Your task to perform on an android device: Go to notification settings Image 0: 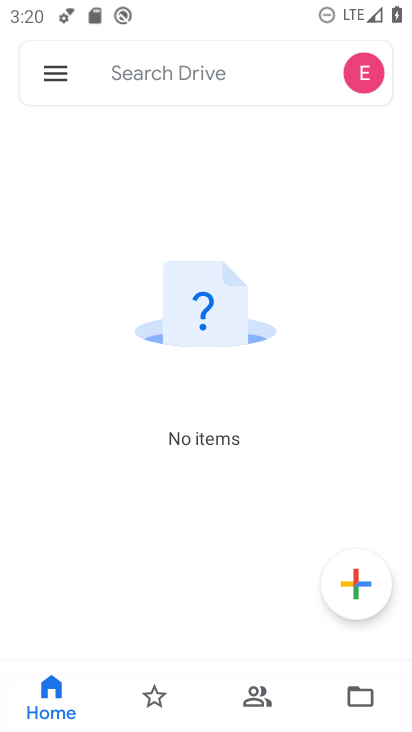
Step 0: press home button
Your task to perform on an android device: Go to notification settings Image 1: 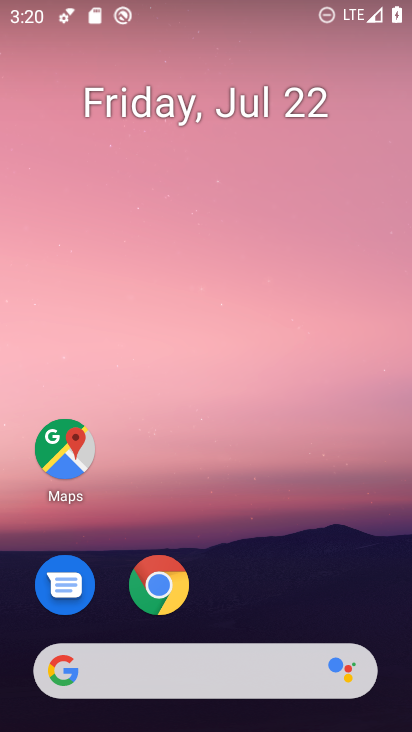
Step 1: drag from (265, 555) to (253, 1)
Your task to perform on an android device: Go to notification settings Image 2: 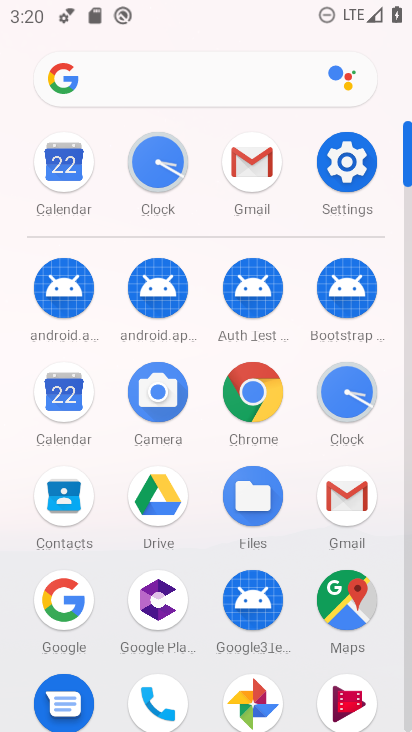
Step 2: click (350, 160)
Your task to perform on an android device: Go to notification settings Image 3: 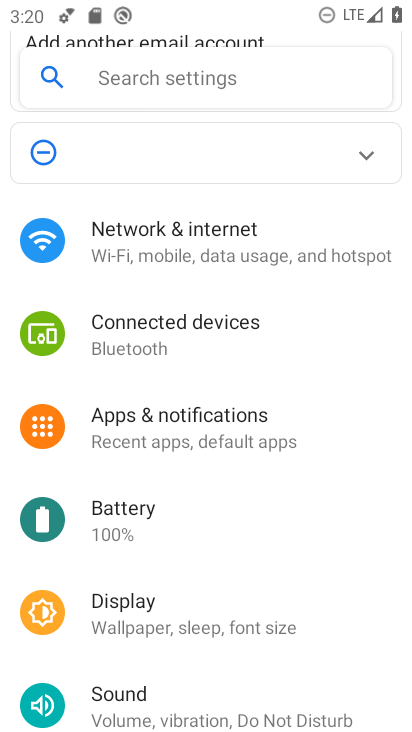
Step 3: drag from (227, 596) to (242, 149)
Your task to perform on an android device: Go to notification settings Image 4: 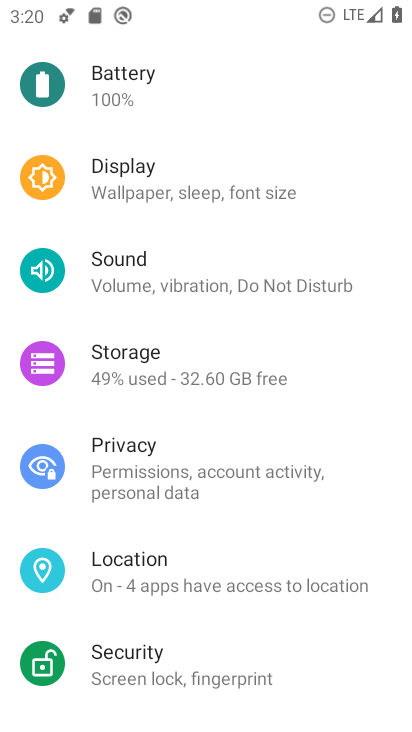
Step 4: drag from (232, 155) to (234, 569)
Your task to perform on an android device: Go to notification settings Image 5: 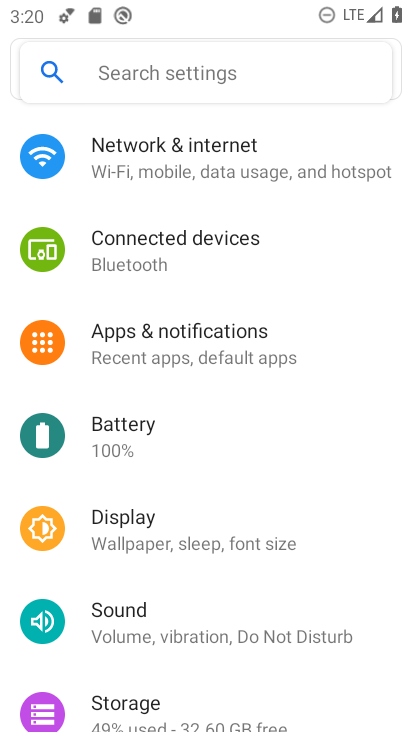
Step 5: click (232, 170)
Your task to perform on an android device: Go to notification settings Image 6: 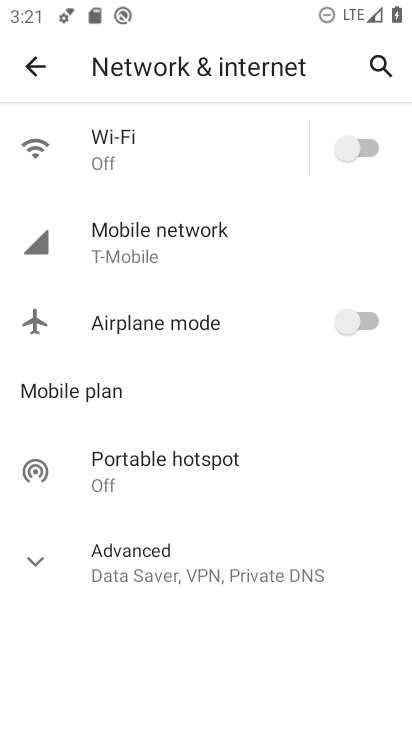
Step 6: click (34, 59)
Your task to perform on an android device: Go to notification settings Image 7: 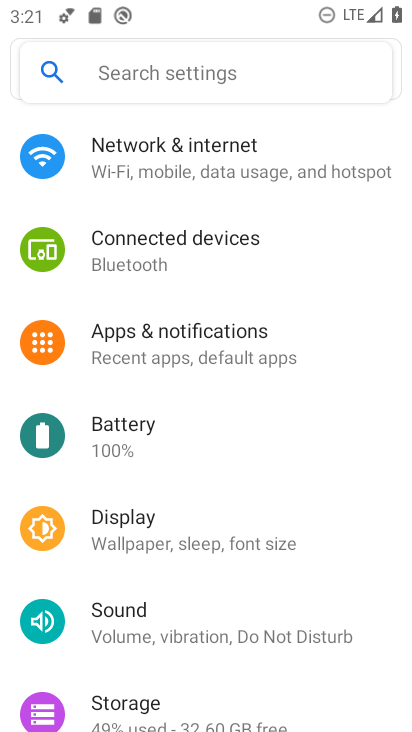
Step 7: click (225, 347)
Your task to perform on an android device: Go to notification settings Image 8: 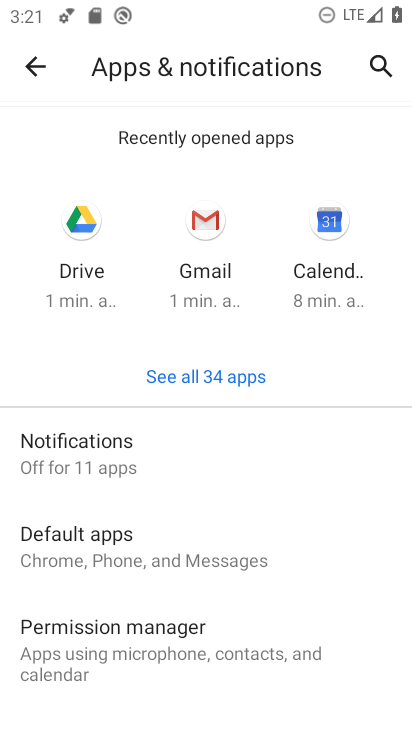
Step 8: click (122, 452)
Your task to perform on an android device: Go to notification settings Image 9: 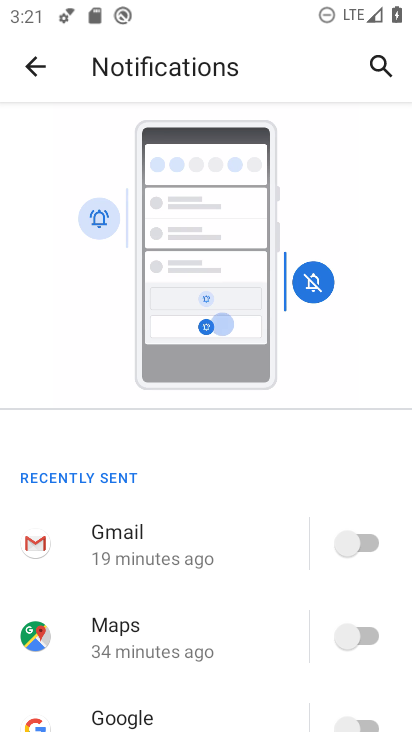
Step 9: task complete